Your task to perform on an android device: Is it going to rain tomorrow? Image 0: 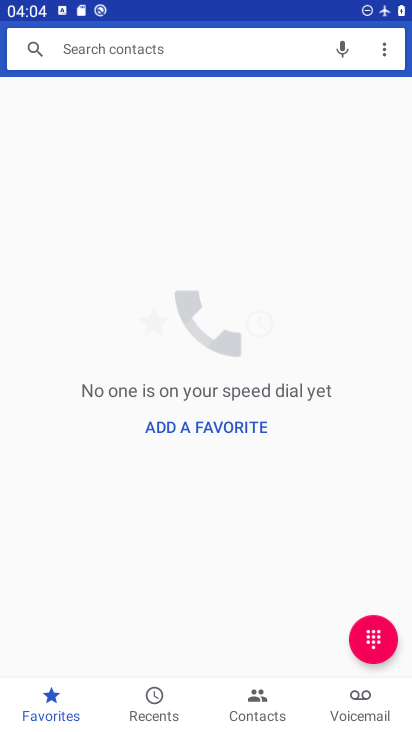
Step 0: press home button
Your task to perform on an android device: Is it going to rain tomorrow? Image 1: 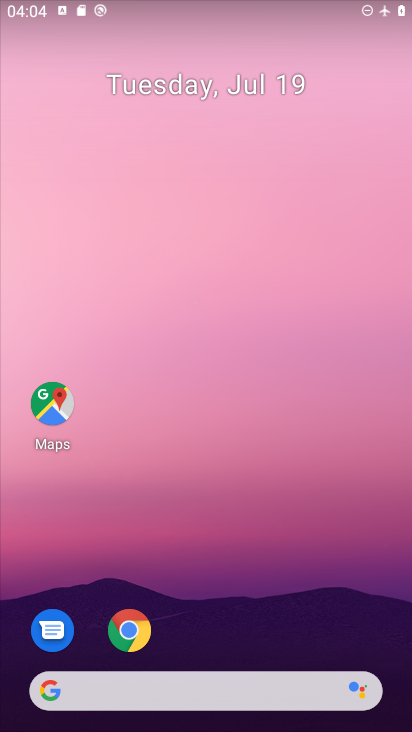
Step 1: drag from (7, 272) to (378, 257)
Your task to perform on an android device: Is it going to rain tomorrow? Image 2: 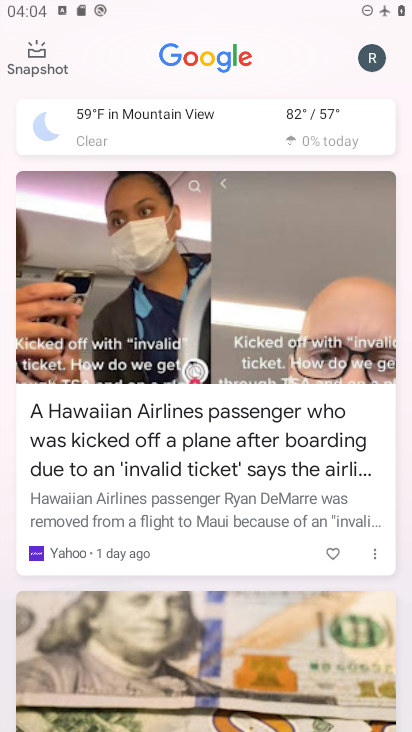
Step 2: click (302, 118)
Your task to perform on an android device: Is it going to rain tomorrow? Image 3: 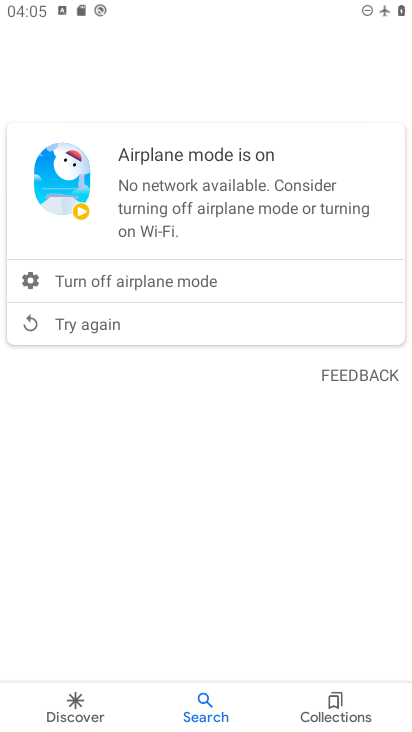
Step 3: click (27, 322)
Your task to perform on an android device: Is it going to rain tomorrow? Image 4: 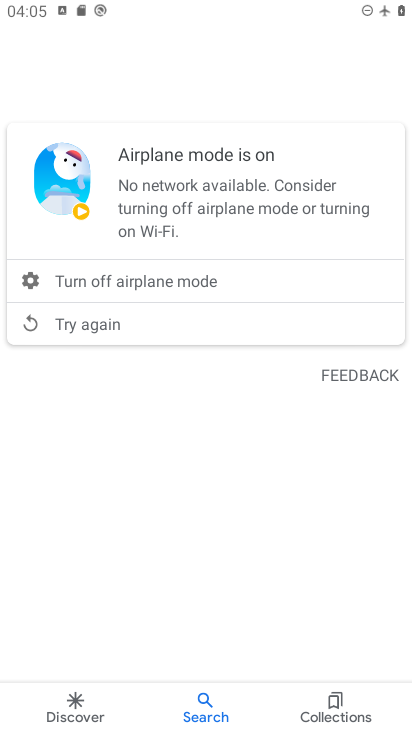
Step 4: click (27, 322)
Your task to perform on an android device: Is it going to rain tomorrow? Image 5: 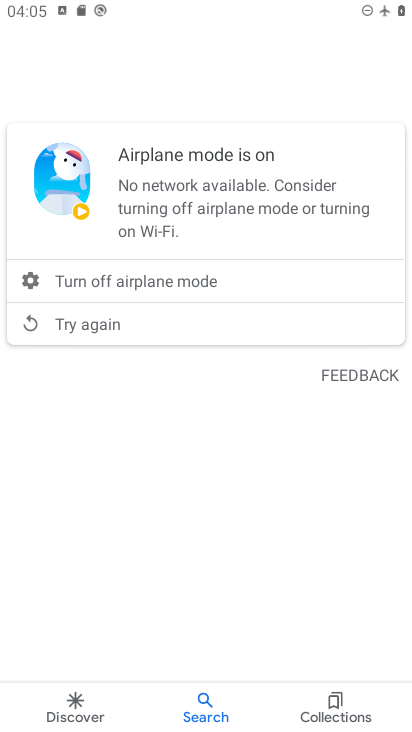
Step 5: task complete